Your task to perform on an android device: turn off smart reply in the gmail app Image 0: 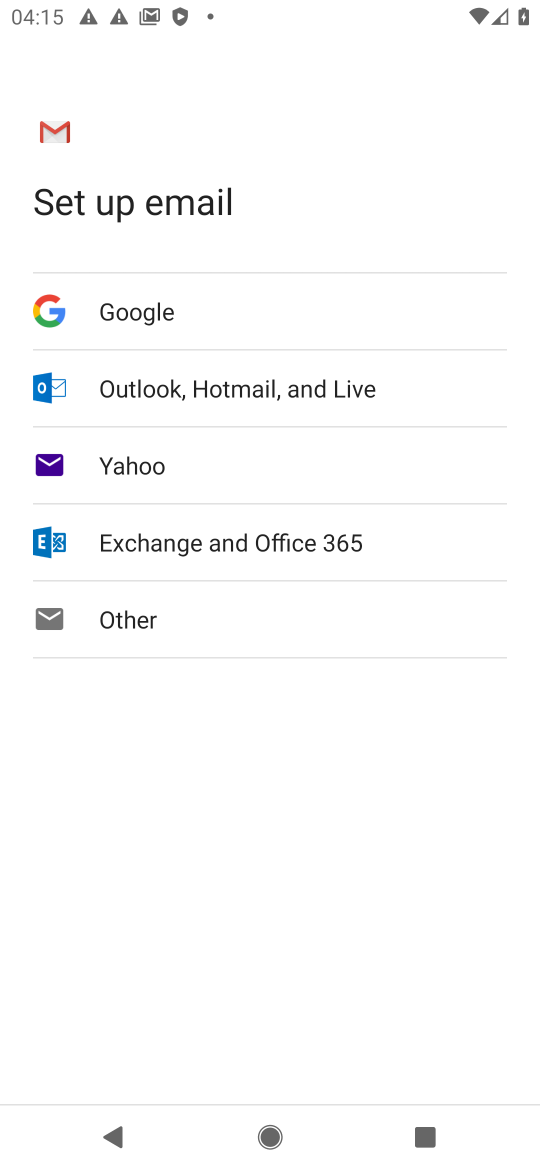
Step 0: press home button
Your task to perform on an android device: turn off smart reply in the gmail app Image 1: 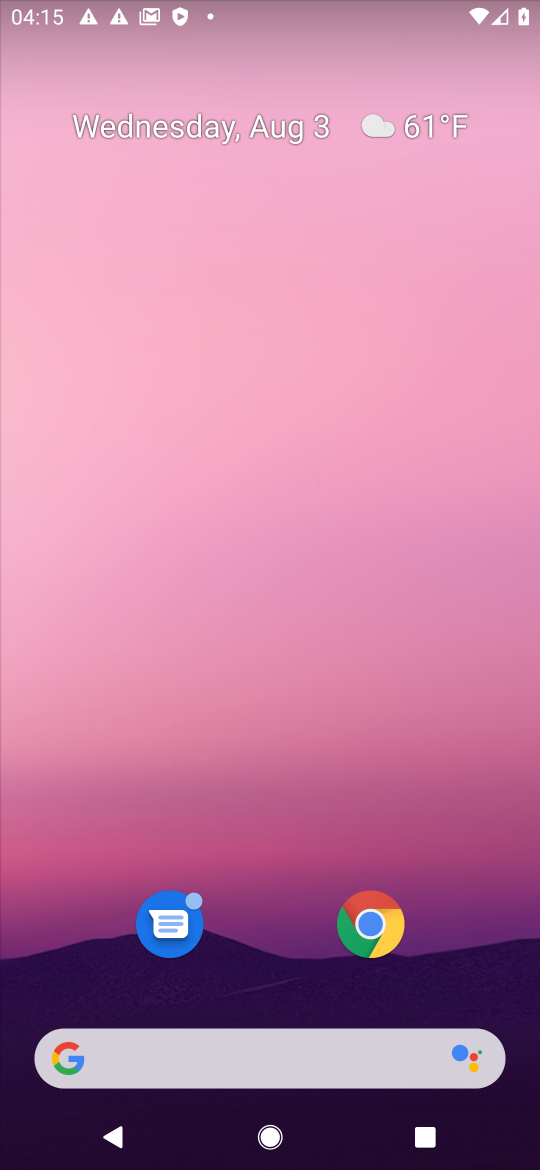
Step 1: drag from (239, 942) to (229, 188)
Your task to perform on an android device: turn off smart reply in the gmail app Image 2: 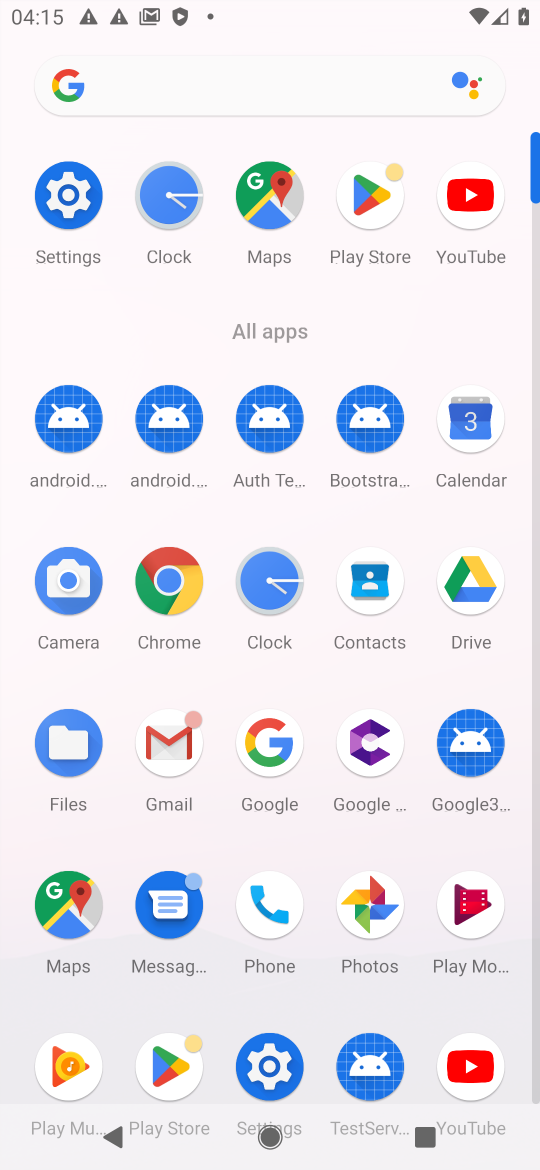
Step 2: click (175, 747)
Your task to perform on an android device: turn off smart reply in the gmail app Image 3: 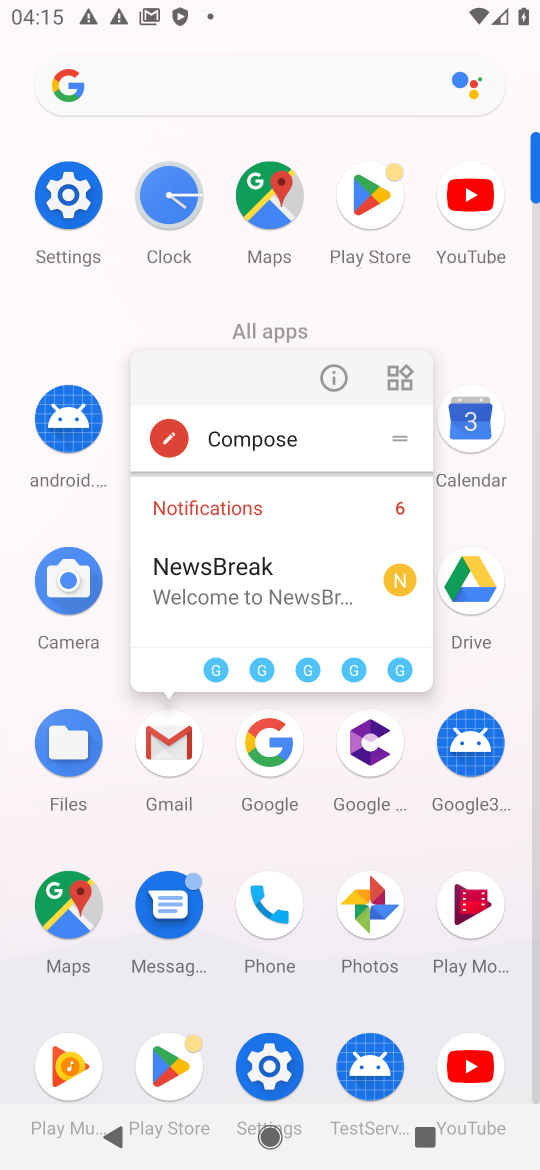
Step 3: click (175, 747)
Your task to perform on an android device: turn off smart reply in the gmail app Image 4: 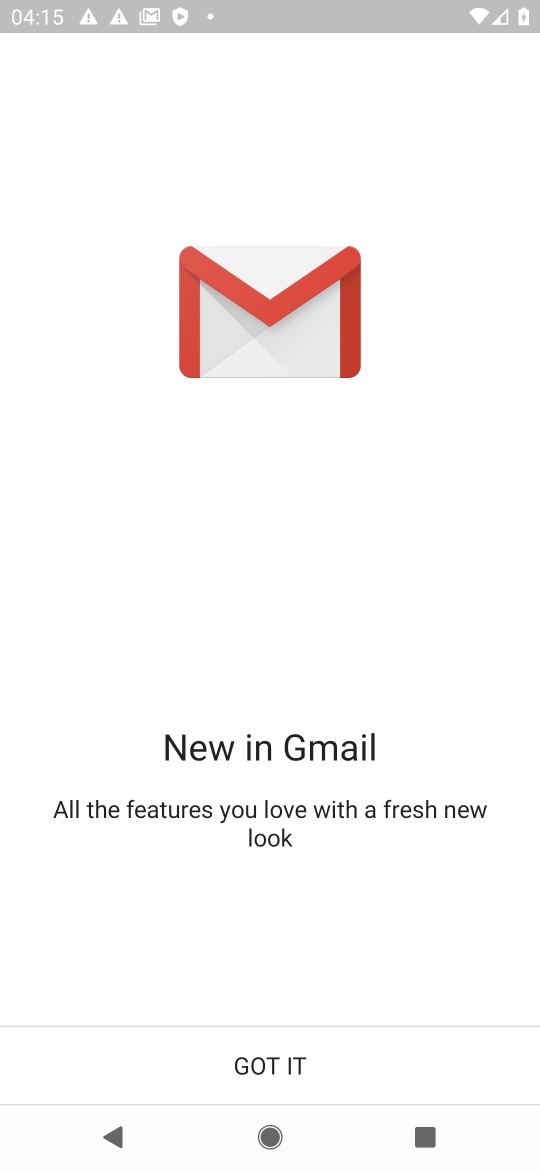
Step 4: click (285, 1082)
Your task to perform on an android device: turn off smart reply in the gmail app Image 5: 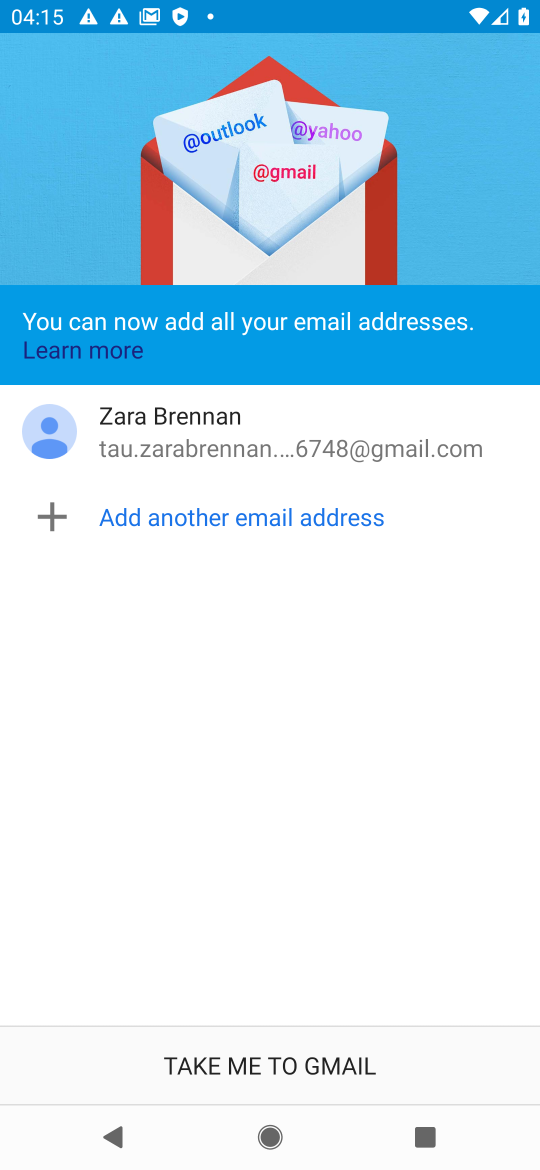
Step 5: click (285, 1082)
Your task to perform on an android device: turn off smart reply in the gmail app Image 6: 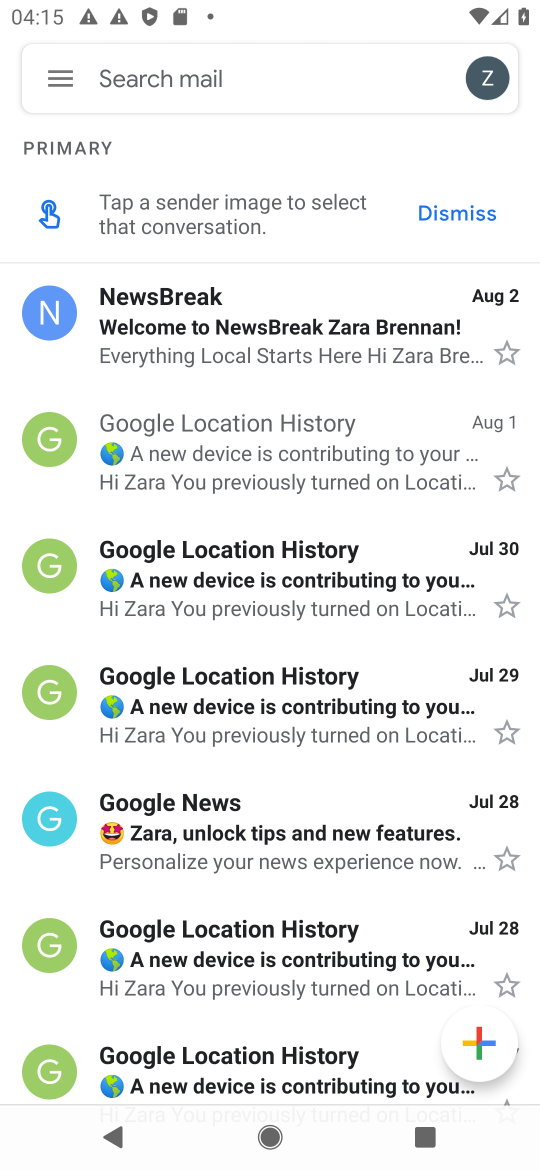
Step 6: click (49, 83)
Your task to perform on an android device: turn off smart reply in the gmail app Image 7: 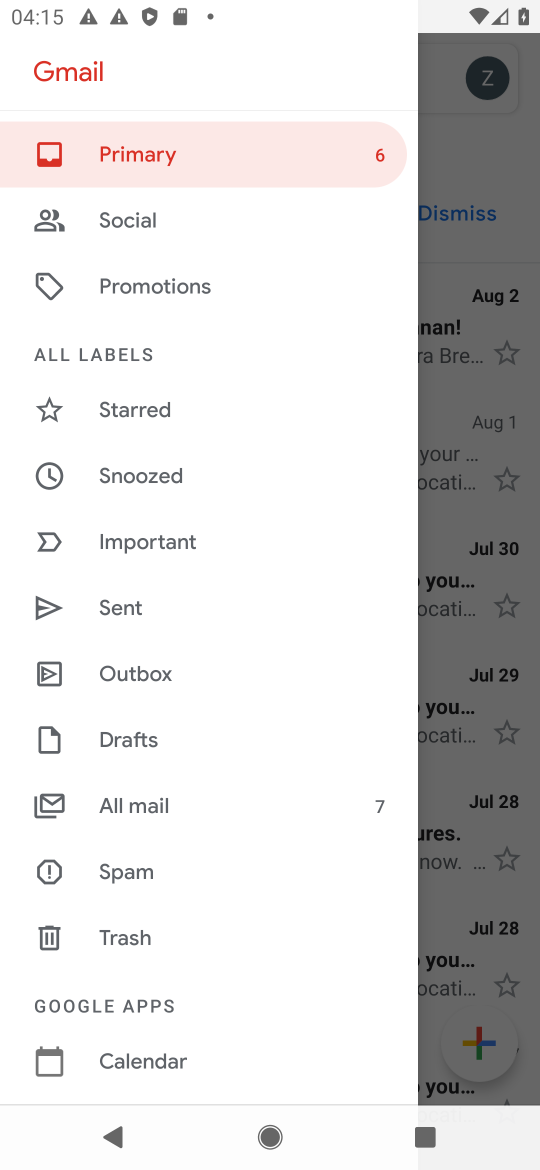
Step 7: drag from (156, 980) to (189, 473)
Your task to perform on an android device: turn off smart reply in the gmail app Image 8: 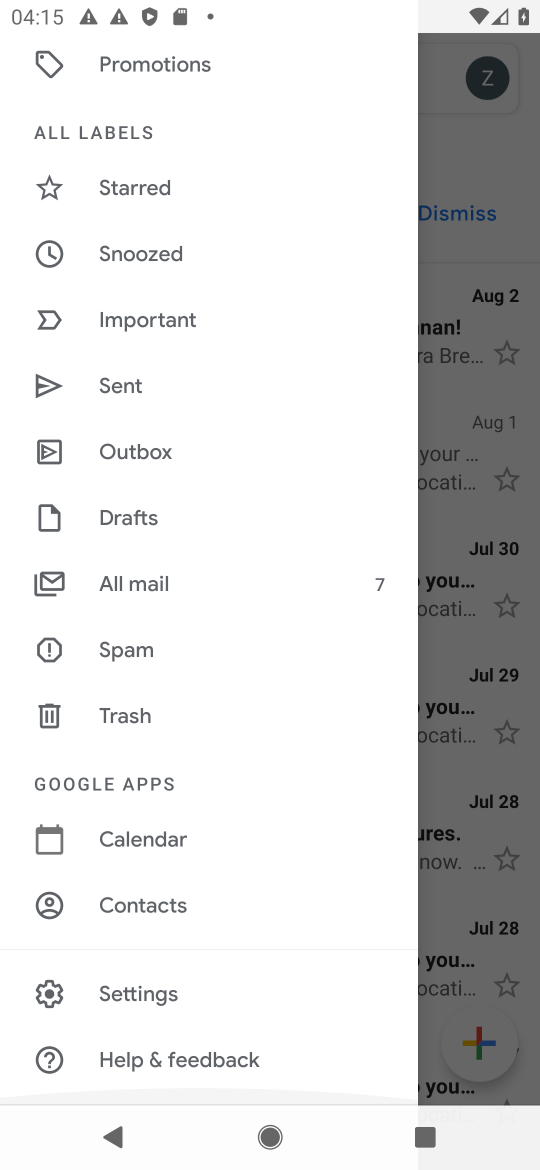
Step 8: click (169, 1010)
Your task to perform on an android device: turn off smart reply in the gmail app Image 9: 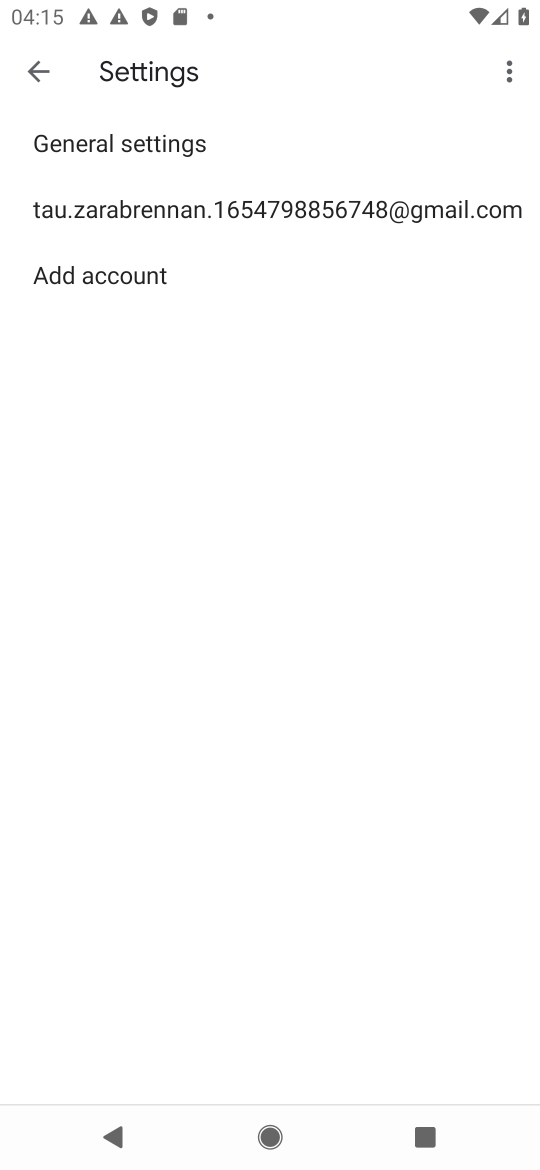
Step 9: click (277, 208)
Your task to perform on an android device: turn off smart reply in the gmail app Image 10: 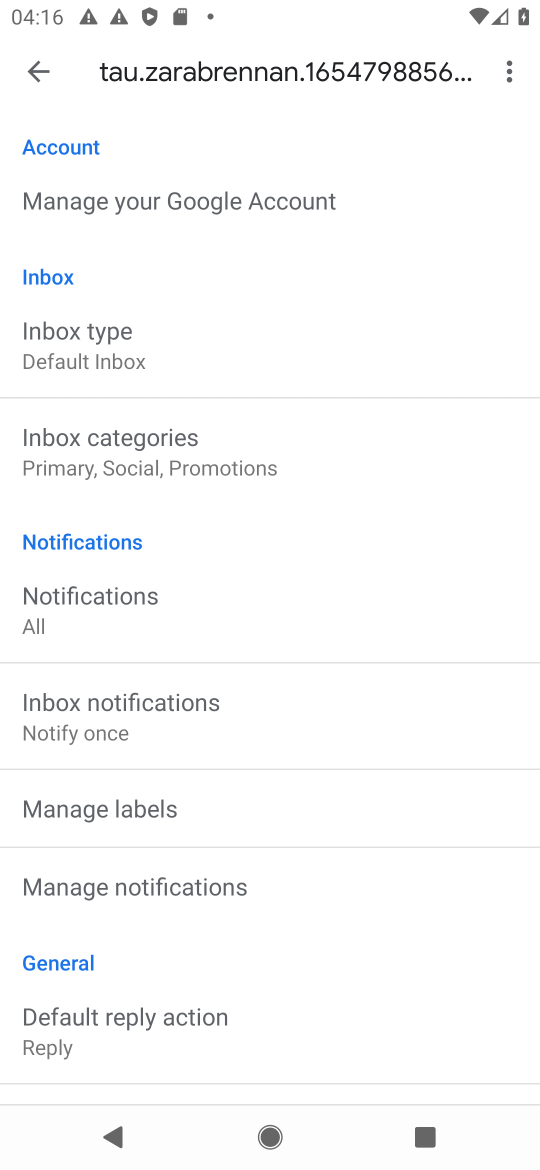
Step 10: drag from (236, 940) to (231, 522)
Your task to perform on an android device: turn off smart reply in the gmail app Image 11: 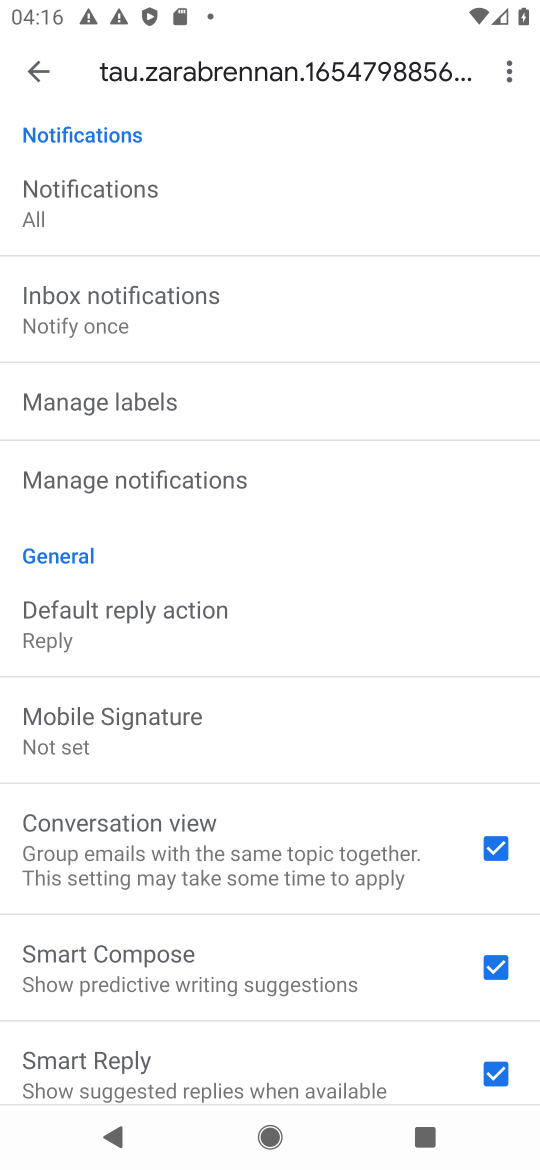
Step 11: drag from (284, 999) to (282, 613)
Your task to perform on an android device: turn off smart reply in the gmail app Image 12: 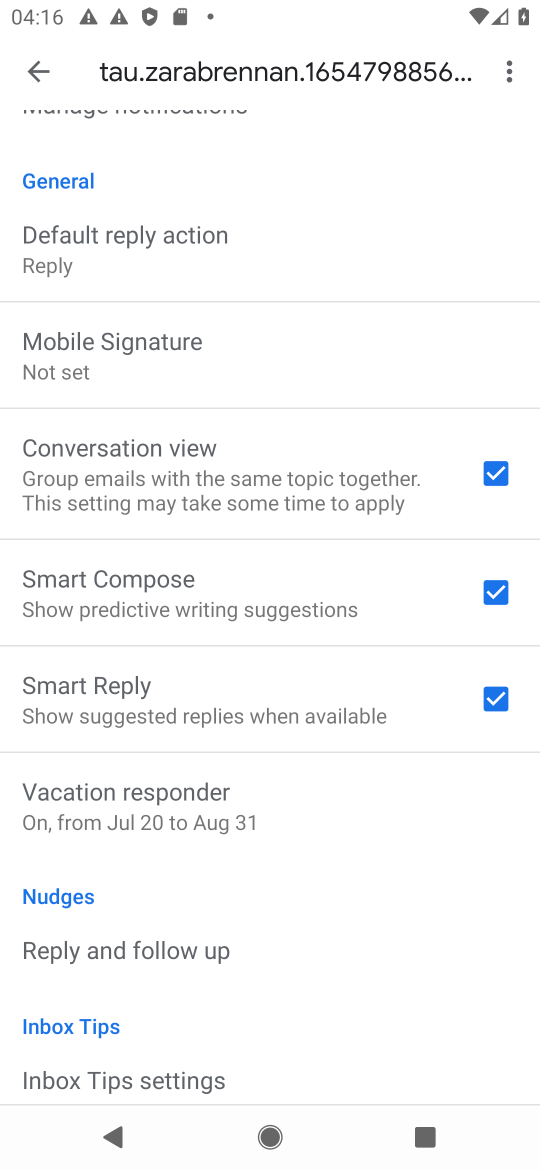
Step 12: click (481, 703)
Your task to perform on an android device: turn off smart reply in the gmail app Image 13: 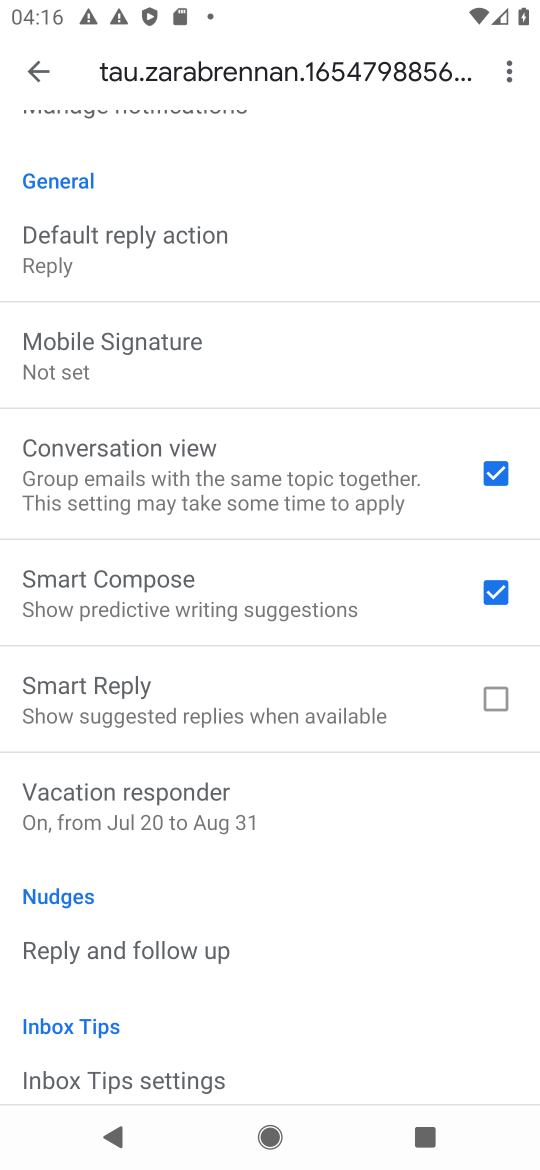
Step 13: task complete